Your task to perform on an android device: Check the weather Image 0: 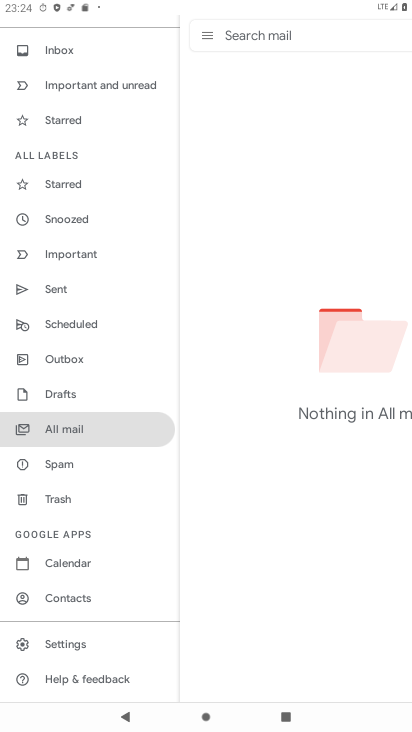
Step 0: press back button
Your task to perform on an android device: Check the weather Image 1: 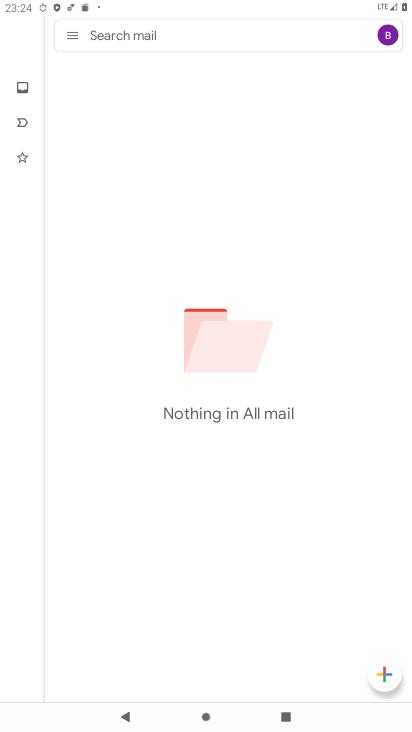
Step 1: press home button
Your task to perform on an android device: Check the weather Image 2: 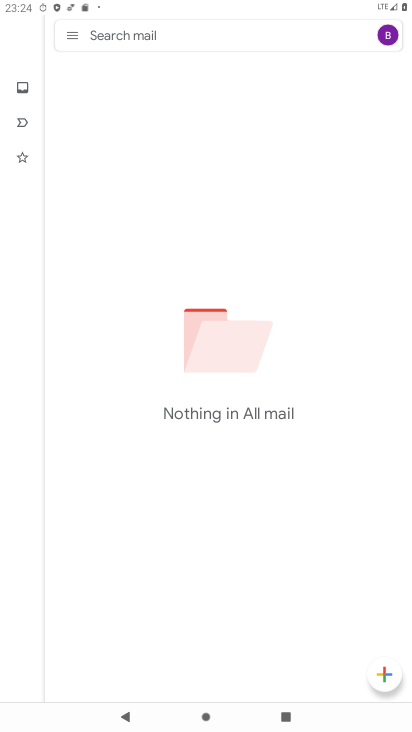
Step 2: press home button
Your task to perform on an android device: Check the weather Image 3: 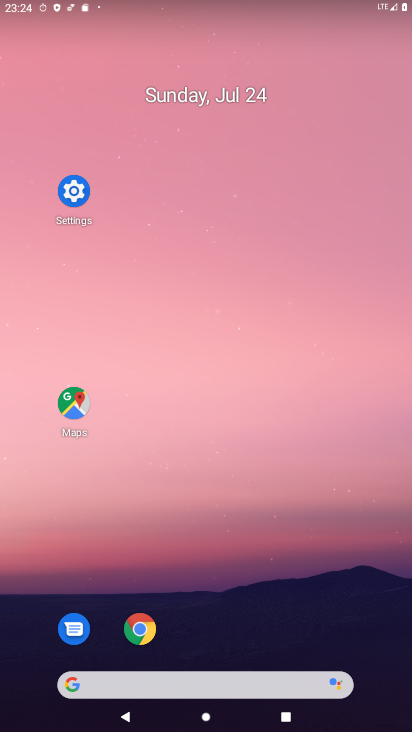
Step 3: drag from (232, 503) to (238, 119)
Your task to perform on an android device: Check the weather Image 4: 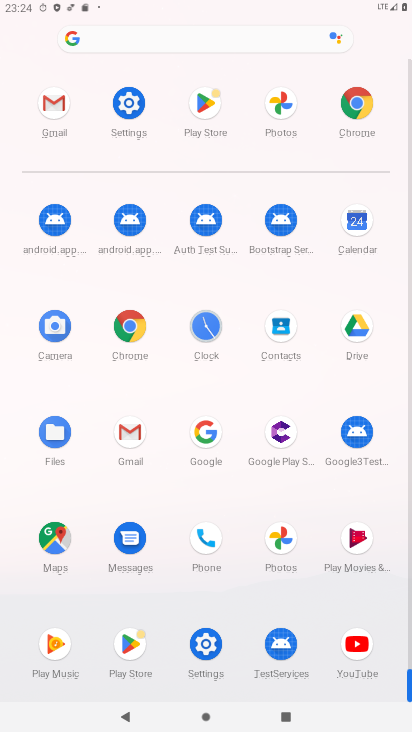
Step 4: click (354, 107)
Your task to perform on an android device: Check the weather Image 5: 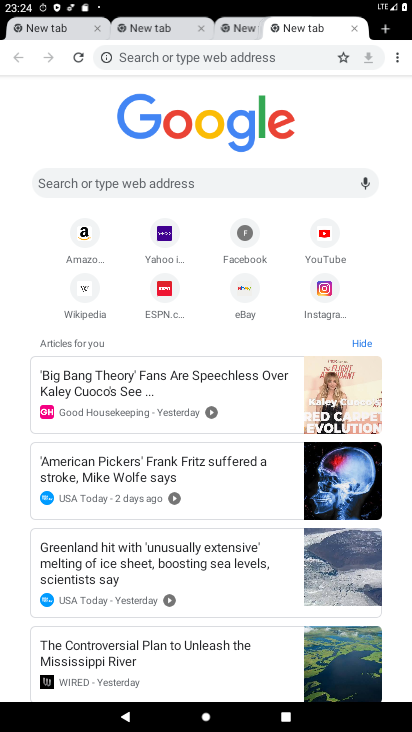
Step 5: click (86, 183)
Your task to perform on an android device: Check the weather Image 6: 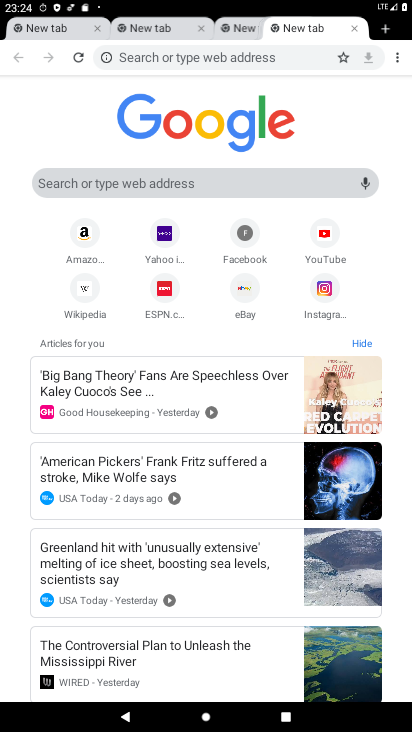
Step 6: click (95, 192)
Your task to perform on an android device: Check the weather Image 7: 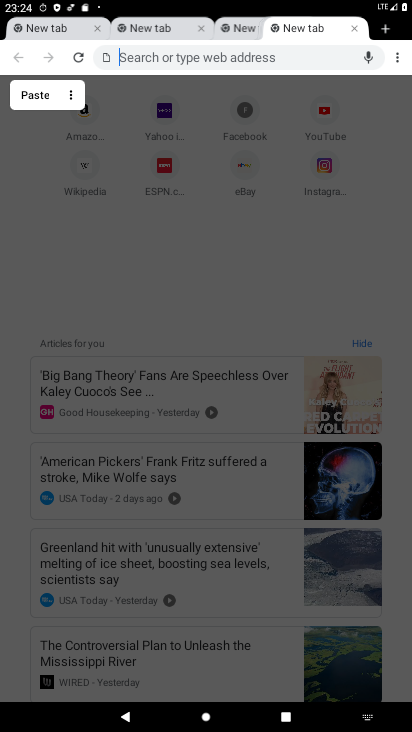
Step 7: type "weather"
Your task to perform on an android device: Check the weather Image 8: 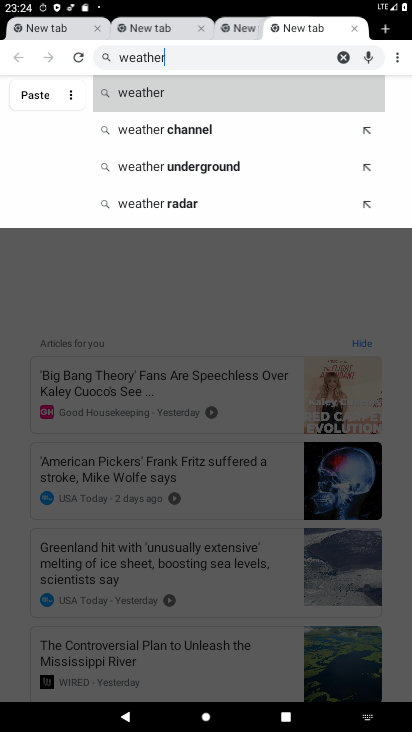
Step 8: click (134, 88)
Your task to perform on an android device: Check the weather Image 9: 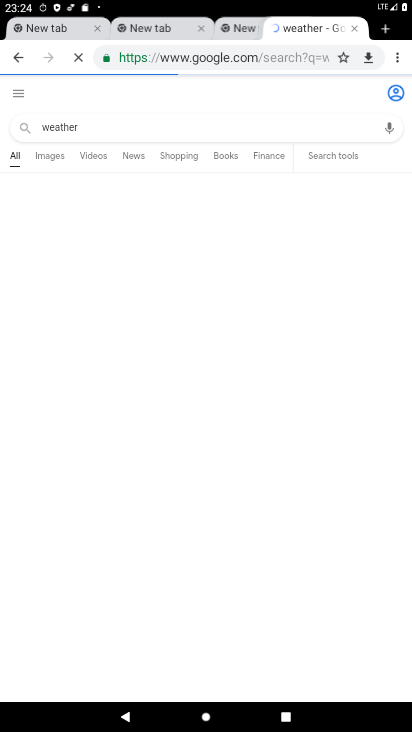
Step 9: task complete